Your task to perform on an android device: Open the Play Movies app and select the watchlist tab. Image 0: 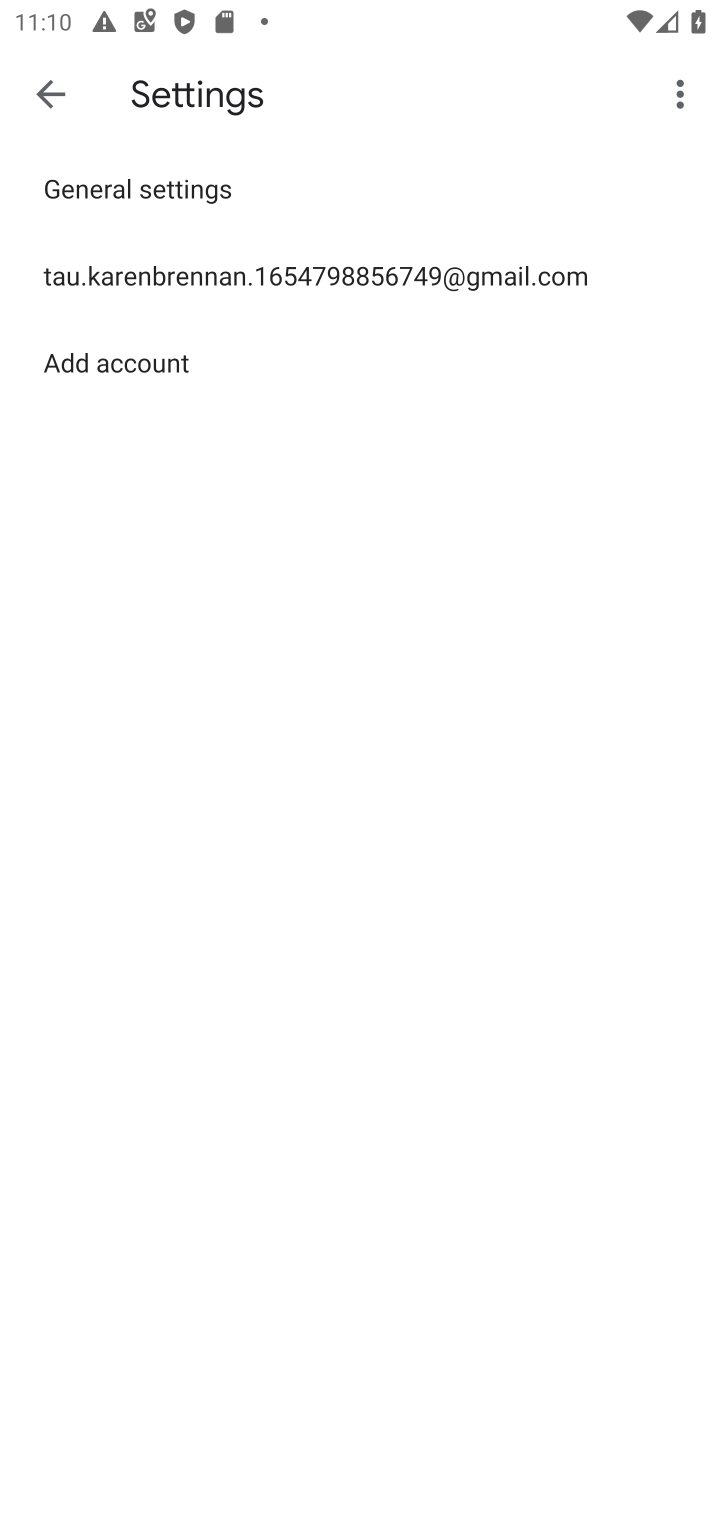
Step 0: press home button
Your task to perform on an android device: Open the Play Movies app and select the watchlist tab. Image 1: 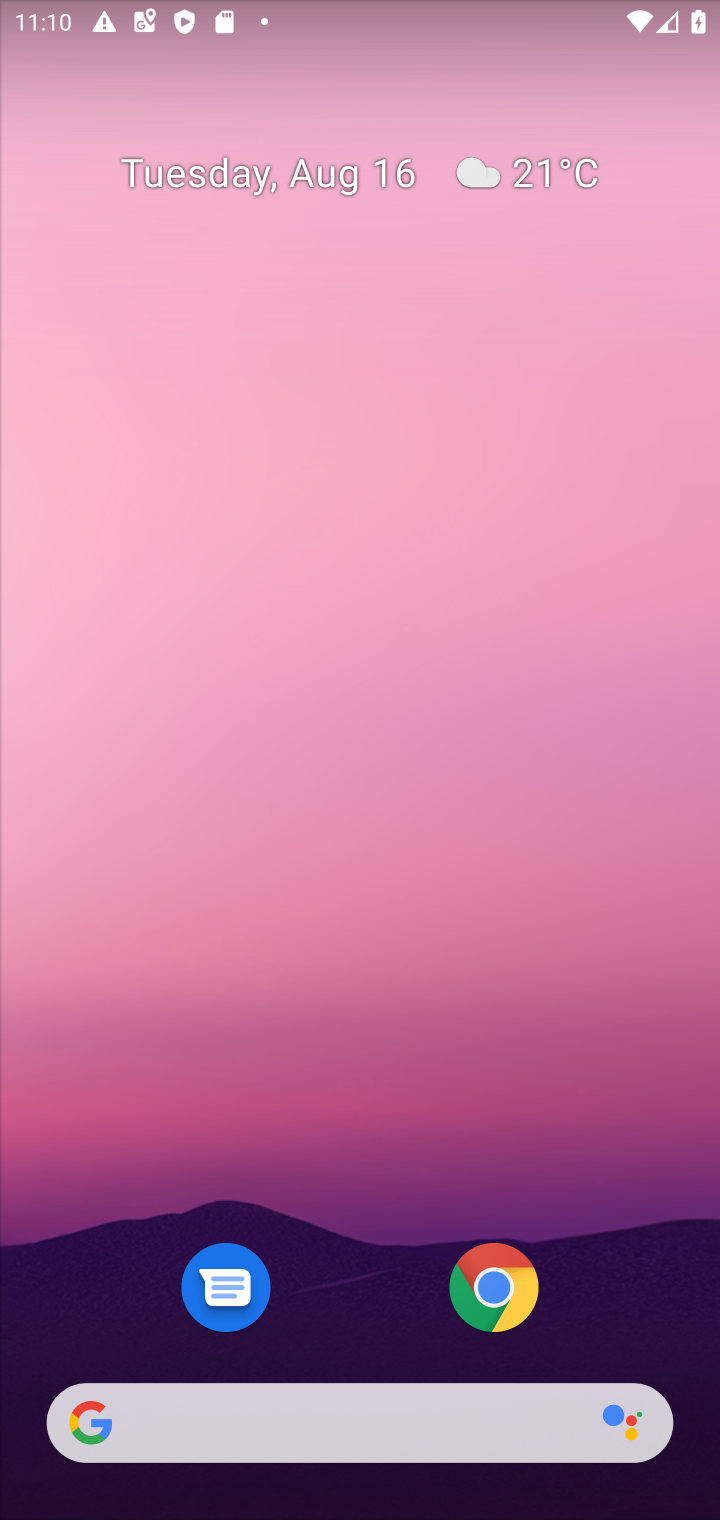
Step 1: drag from (655, 1316) to (555, 352)
Your task to perform on an android device: Open the Play Movies app and select the watchlist tab. Image 2: 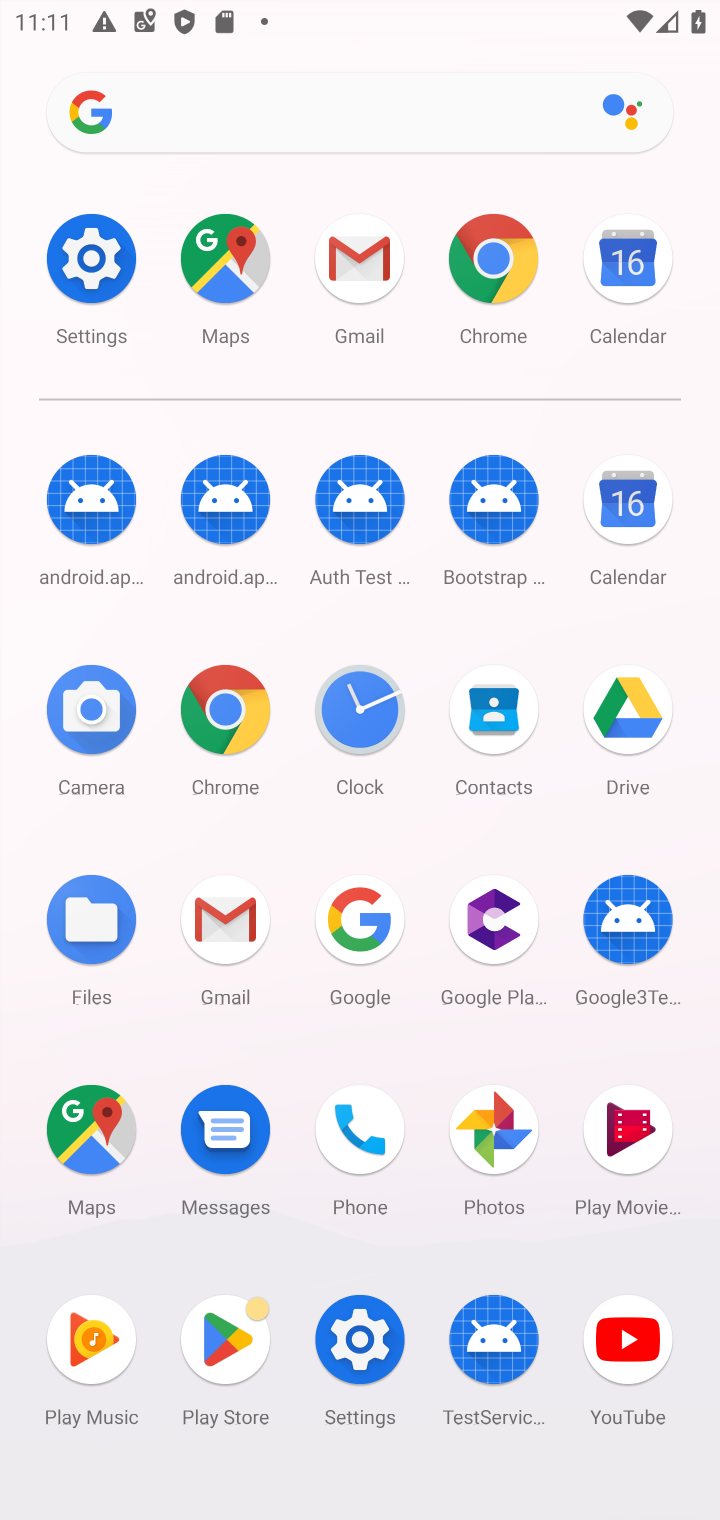
Step 2: click (626, 1119)
Your task to perform on an android device: Open the Play Movies app and select the watchlist tab. Image 3: 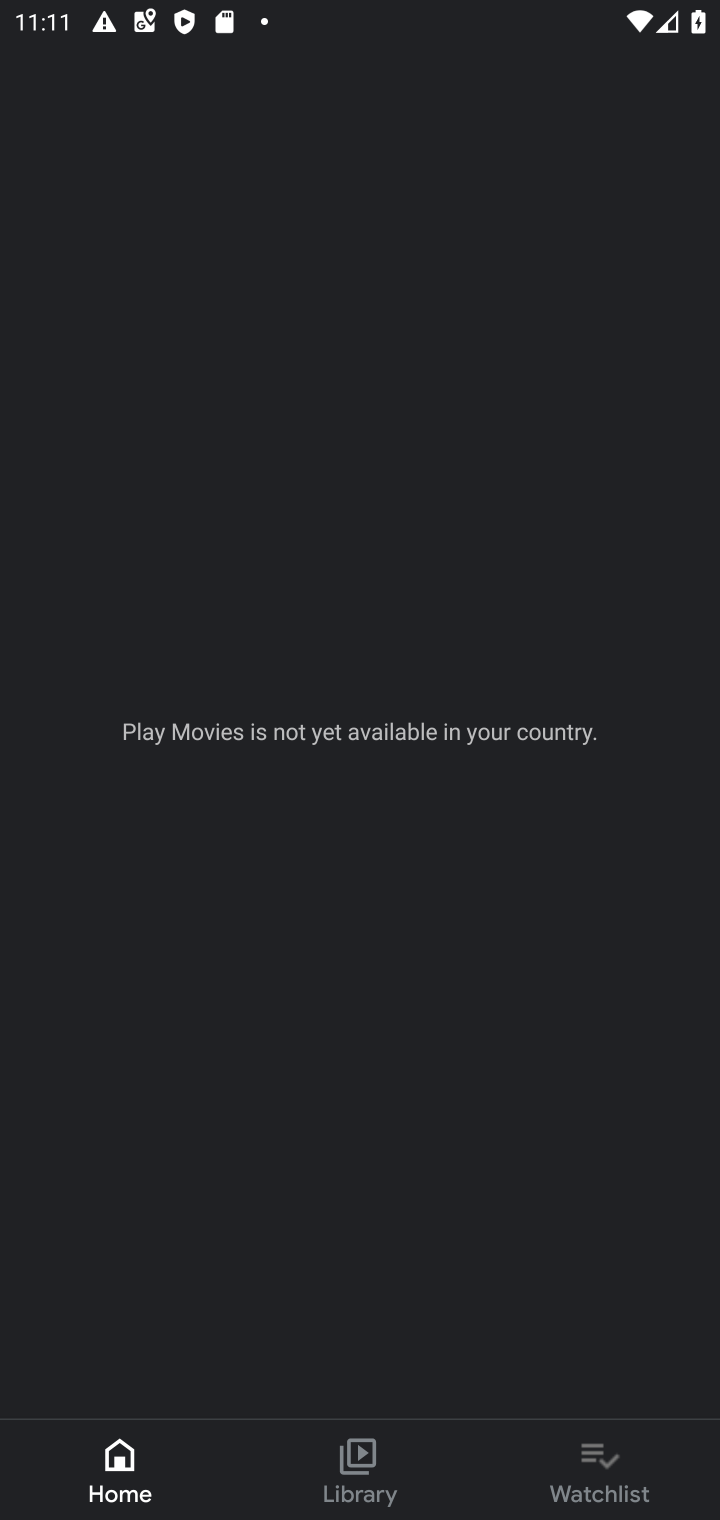
Step 3: click (573, 1466)
Your task to perform on an android device: Open the Play Movies app and select the watchlist tab. Image 4: 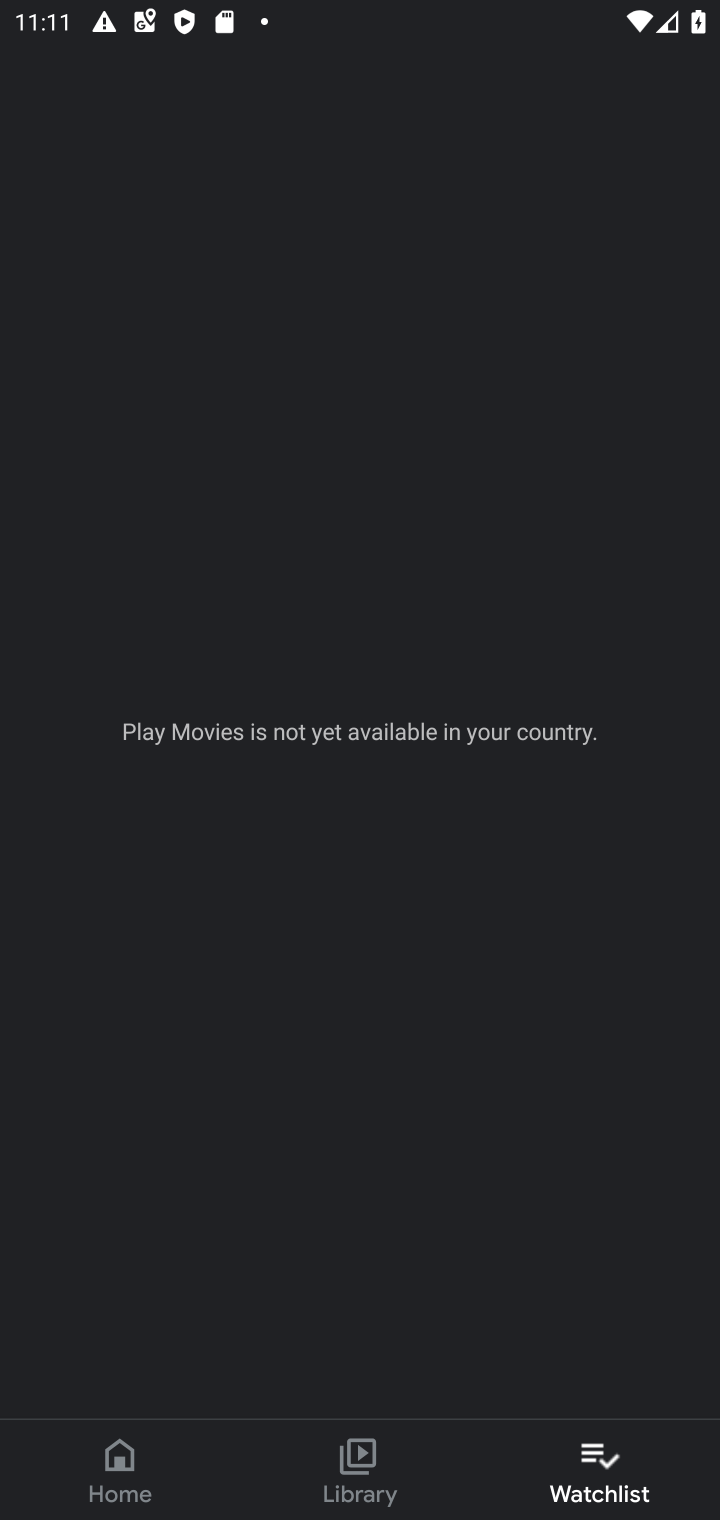
Step 4: task complete